Your task to perform on an android device: turn pop-ups on in chrome Image 0: 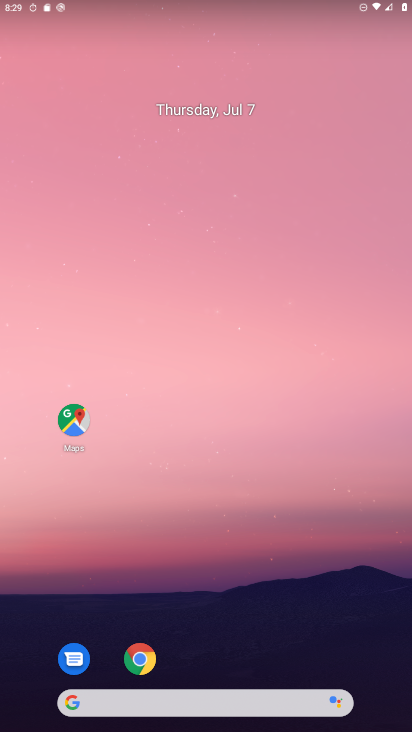
Step 0: drag from (381, 696) to (274, 33)
Your task to perform on an android device: turn pop-ups on in chrome Image 1: 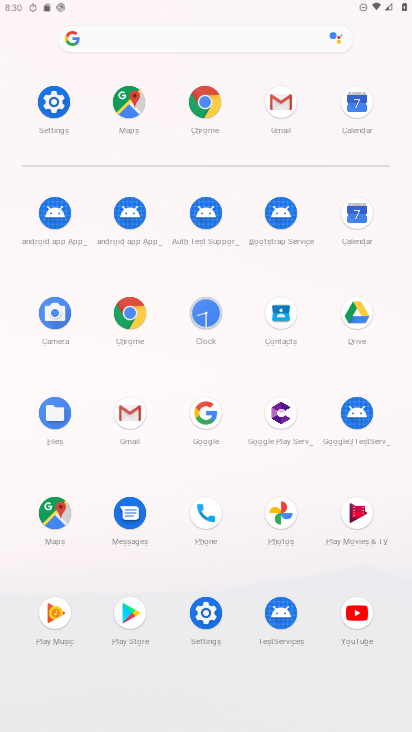
Step 1: click (201, 107)
Your task to perform on an android device: turn pop-ups on in chrome Image 2: 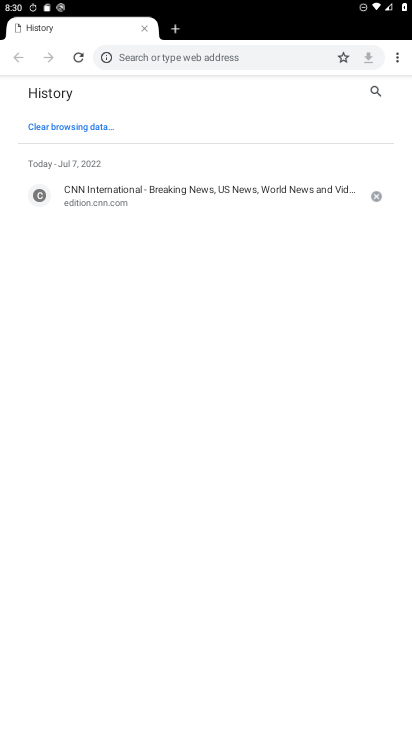
Step 2: click (399, 54)
Your task to perform on an android device: turn pop-ups on in chrome Image 3: 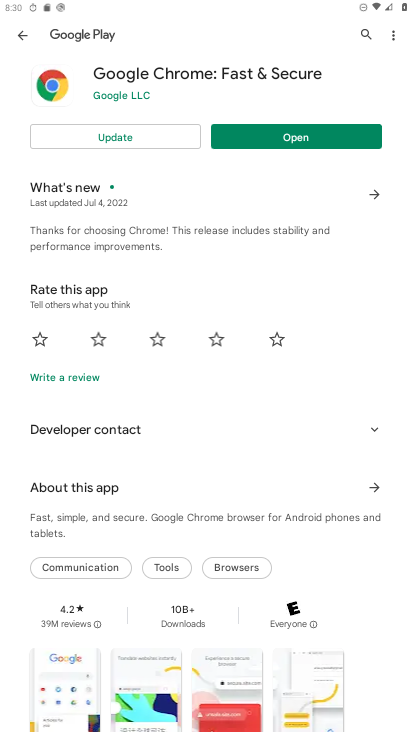
Step 3: click (99, 138)
Your task to perform on an android device: turn pop-ups on in chrome Image 4: 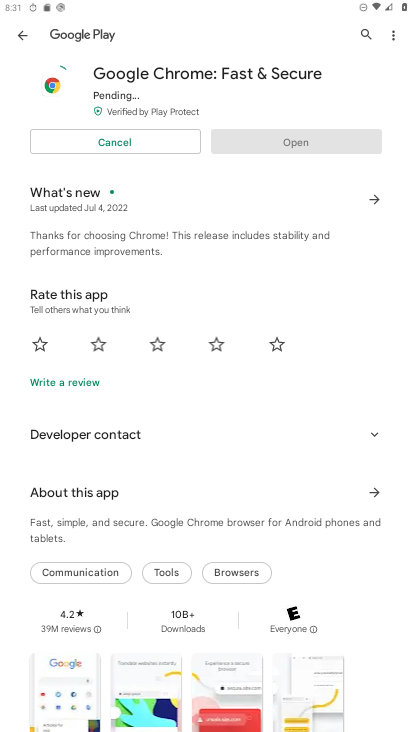
Step 4: task complete